Your task to perform on an android device: Show the shopping cart on bestbuy. Add bose soundlink to the cart on bestbuy Image 0: 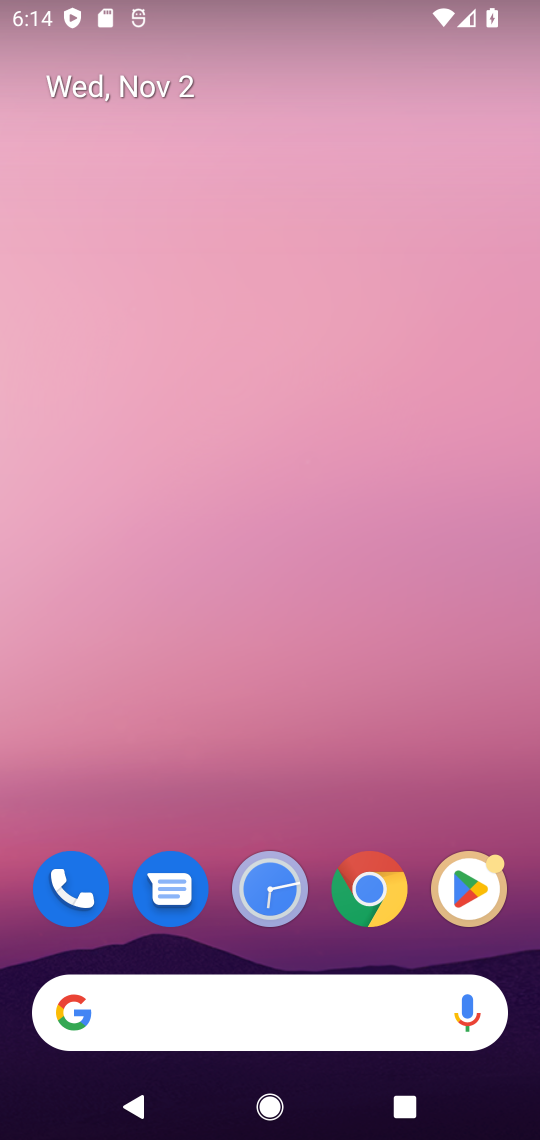
Step 0: click (373, 889)
Your task to perform on an android device: Show the shopping cart on bestbuy. Add bose soundlink to the cart on bestbuy Image 1: 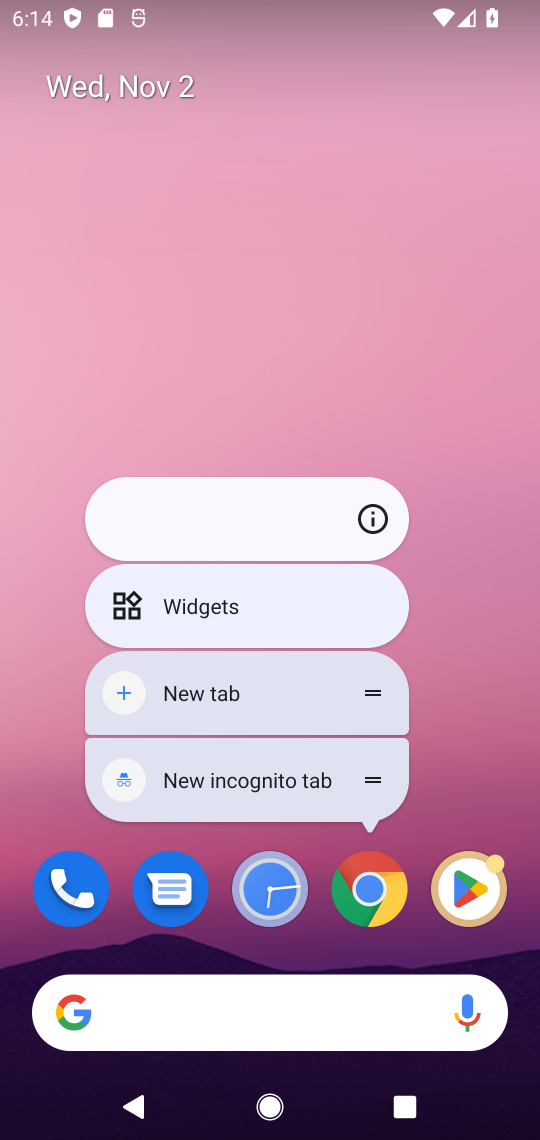
Step 1: click (373, 889)
Your task to perform on an android device: Show the shopping cart on bestbuy. Add bose soundlink to the cart on bestbuy Image 2: 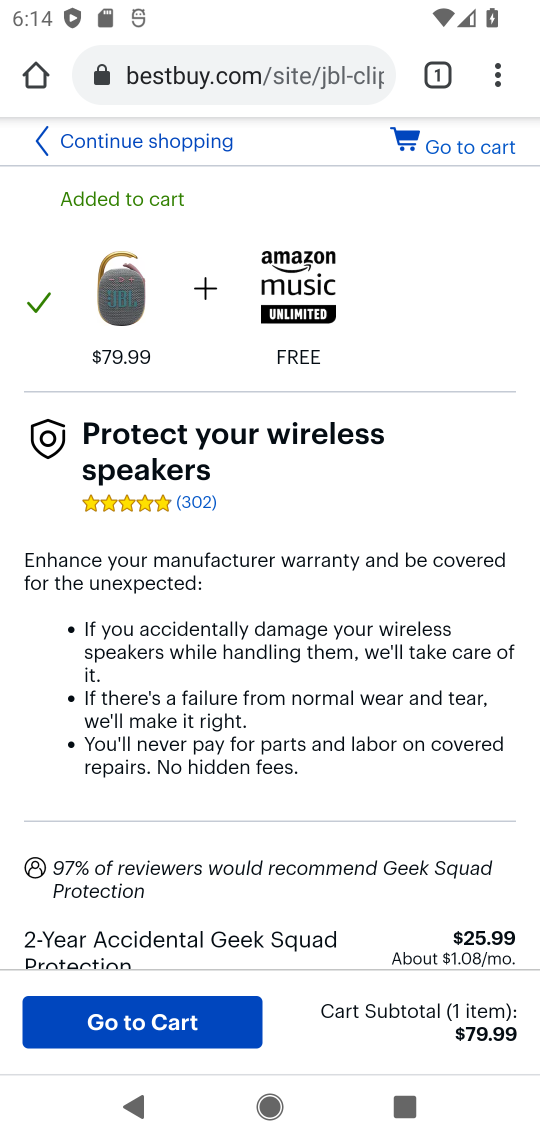
Step 2: drag from (378, 228) to (449, 793)
Your task to perform on an android device: Show the shopping cart on bestbuy. Add bose soundlink to the cart on bestbuy Image 3: 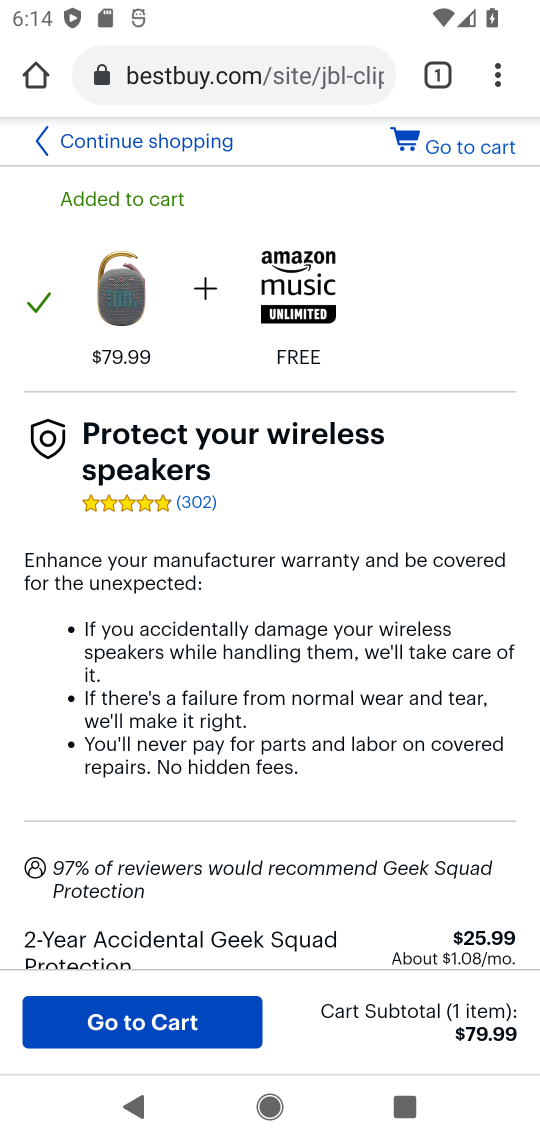
Step 3: drag from (364, 215) to (529, 803)
Your task to perform on an android device: Show the shopping cart on bestbuy. Add bose soundlink to the cart on bestbuy Image 4: 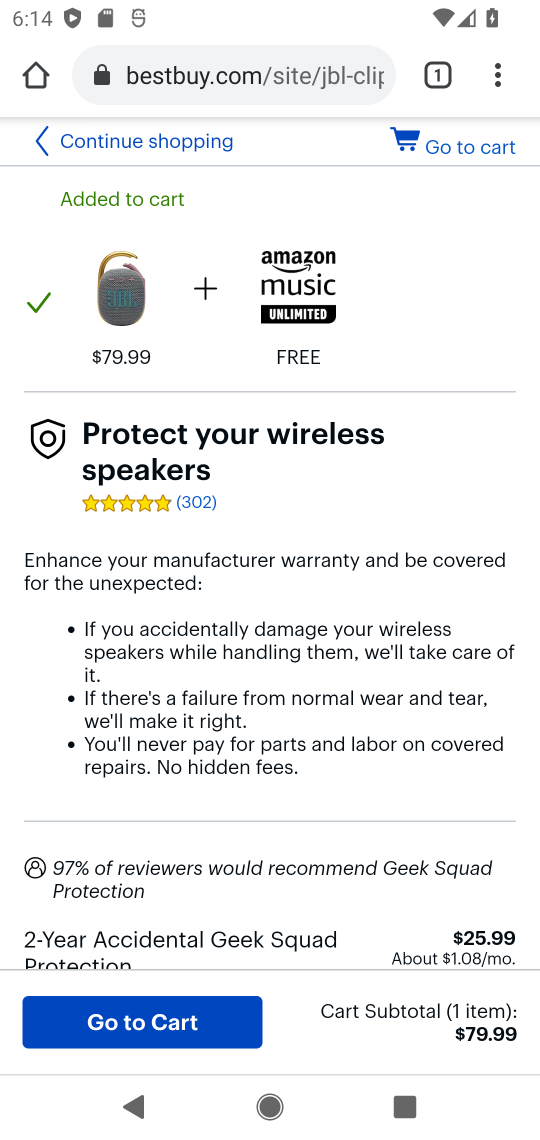
Step 4: click (226, 72)
Your task to perform on an android device: Show the shopping cart on bestbuy. Add bose soundlink to the cart on bestbuy Image 5: 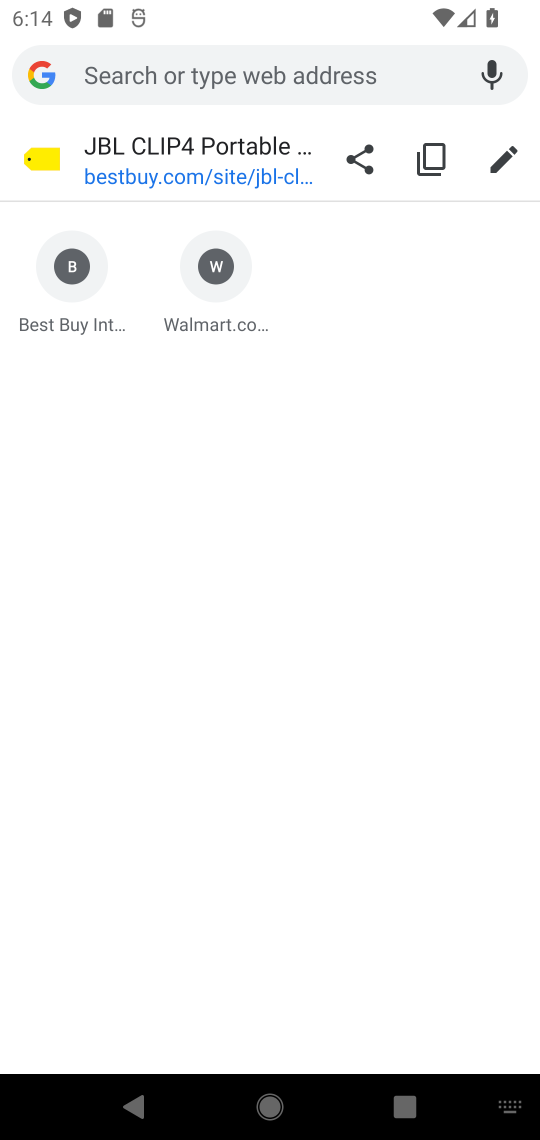
Step 5: click (65, 281)
Your task to perform on an android device: Show the shopping cart on bestbuy. Add bose soundlink to the cart on bestbuy Image 6: 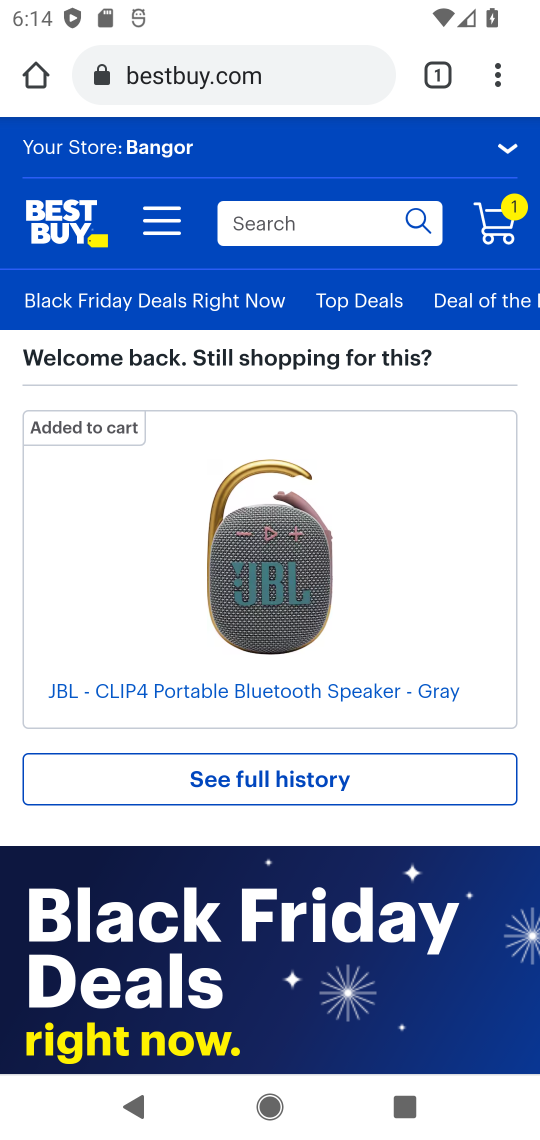
Step 6: click (496, 230)
Your task to perform on an android device: Show the shopping cart on bestbuy. Add bose soundlink to the cart on bestbuy Image 7: 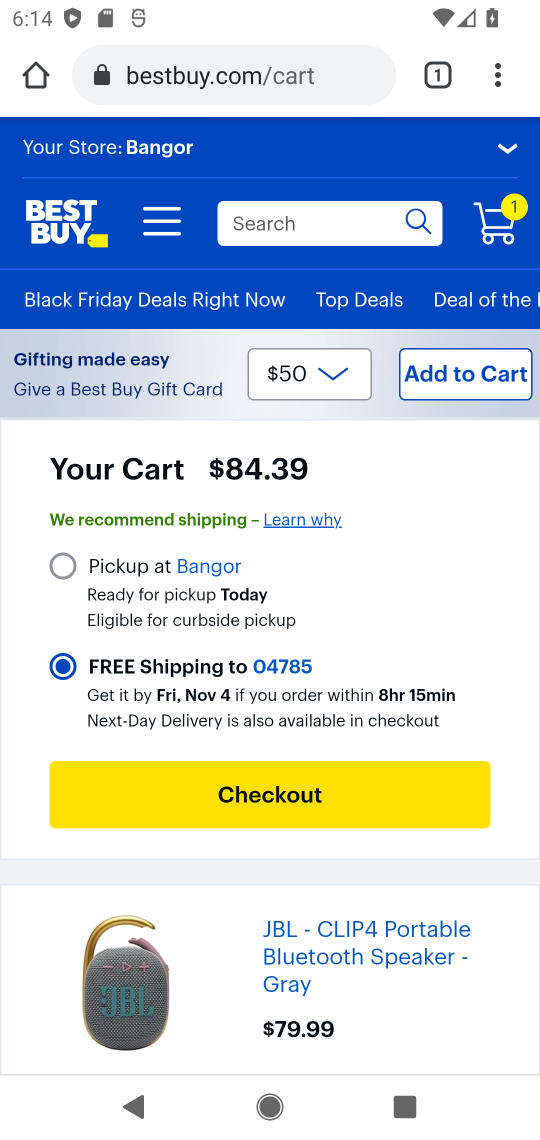
Step 7: click (366, 215)
Your task to perform on an android device: Show the shopping cart on bestbuy. Add bose soundlink to the cart on bestbuy Image 8: 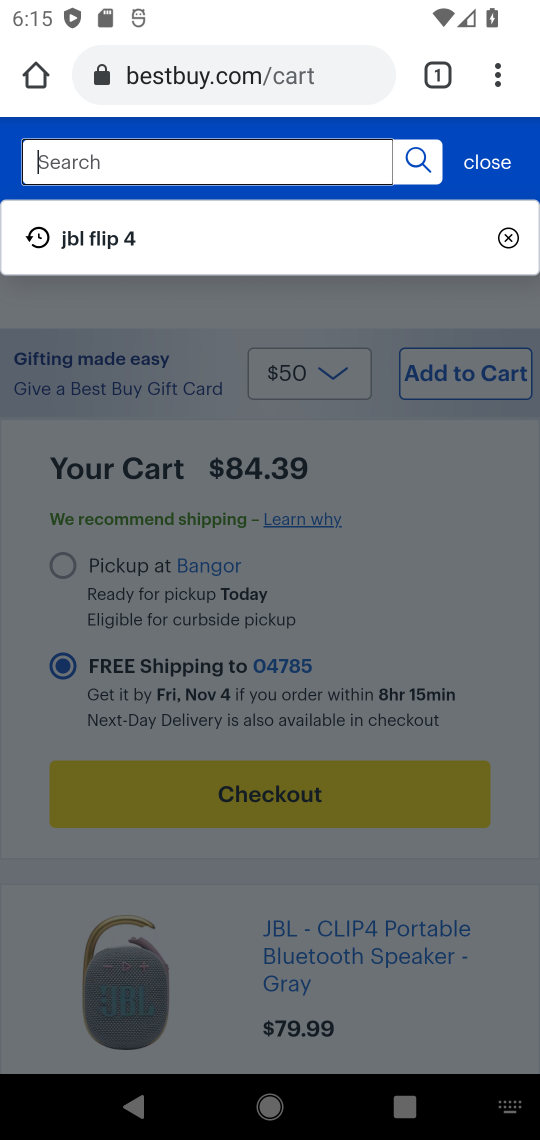
Step 8: type "bose soundlink"
Your task to perform on an android device: Show the shopping cart on bestbuy. Add bose soundlink to the cart on bestbuy Image 9: 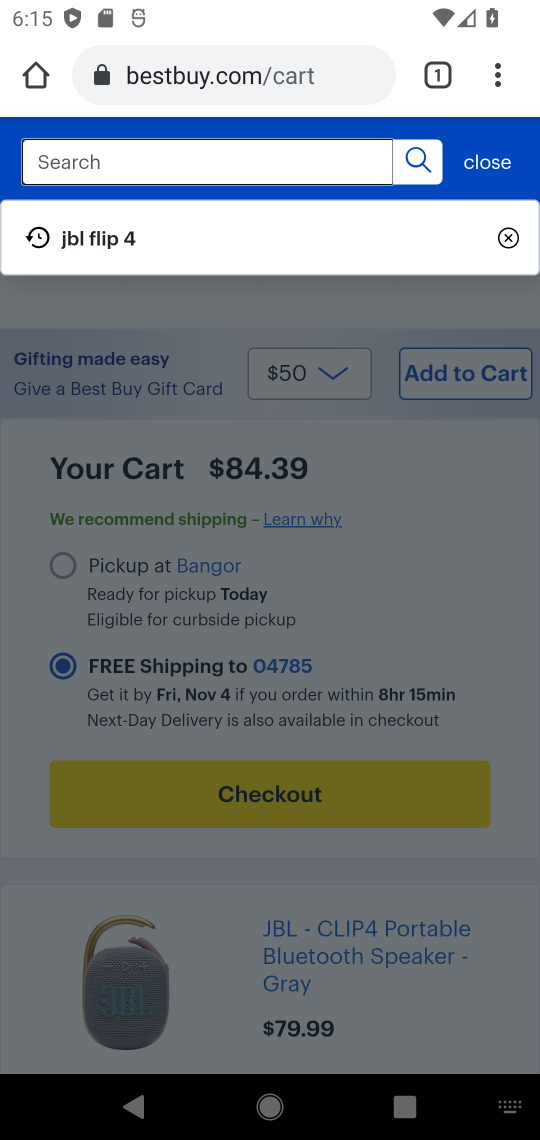
Step 9: press enter
Your task to perform on an android device: Show the shopping cart on bestbuy. Add bose soundlink to the cart on bestbuy Image 10: 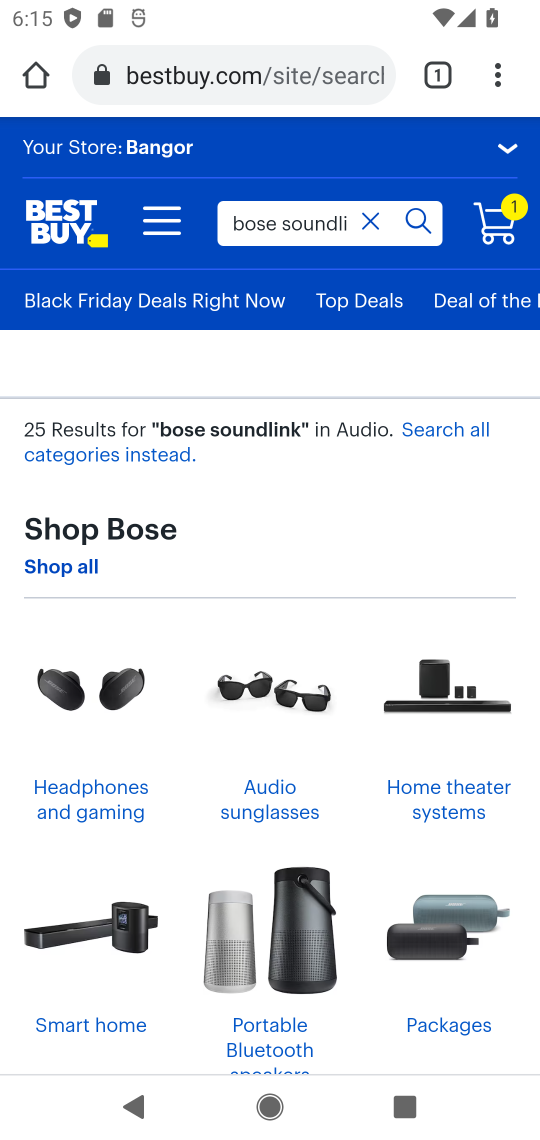
Step 10: drag from (231, 885) to (218, 355)
Your task to perform on an android device: Show the shopping cart on bestbuy. Add bose soundlink to the cart on bestbuy Image 11: 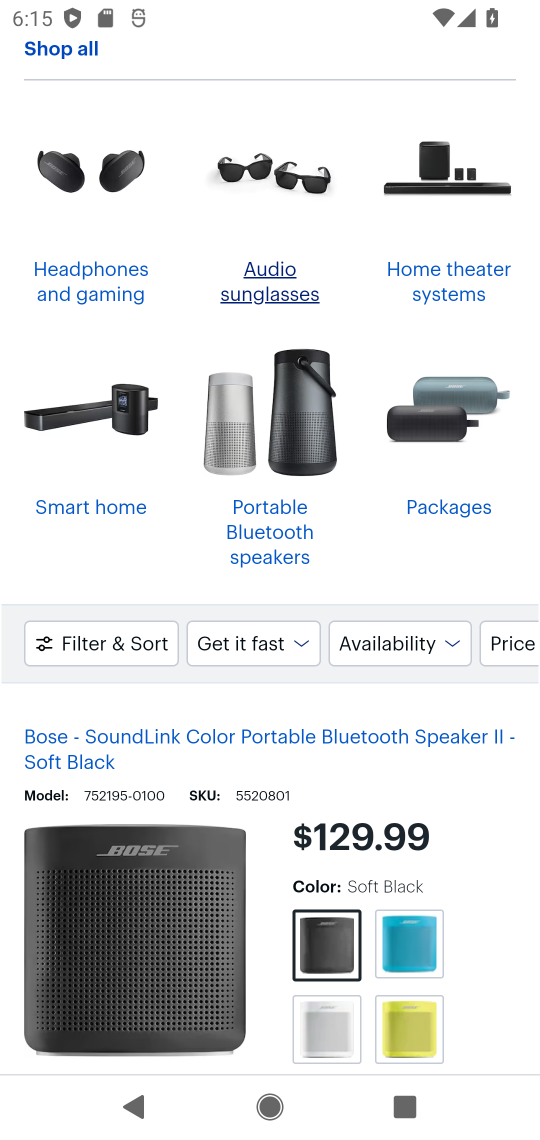
Step 11: click (182, 969)
Your task to perform on an android device: Show the shopping cart on bestbuy. Add bose soundlink to the cart on bestbuy Image 12: 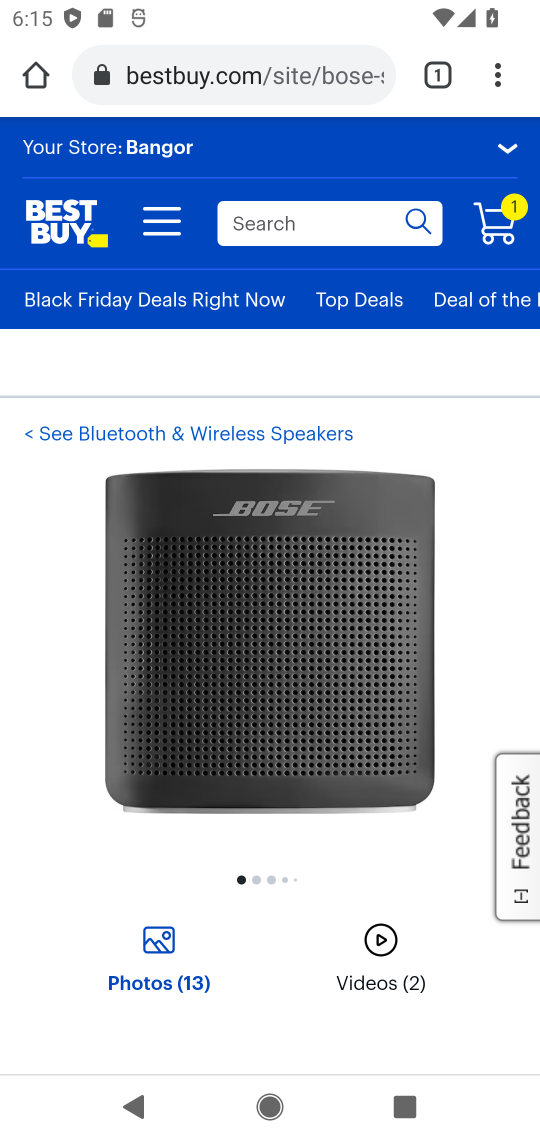
Step 12: drag from (347, 794) to (386, 196)
Your task to perform on an android device: Show the shopping cart on bestbuy. Add bose soundlink to the cart on bestbuy Image 13: 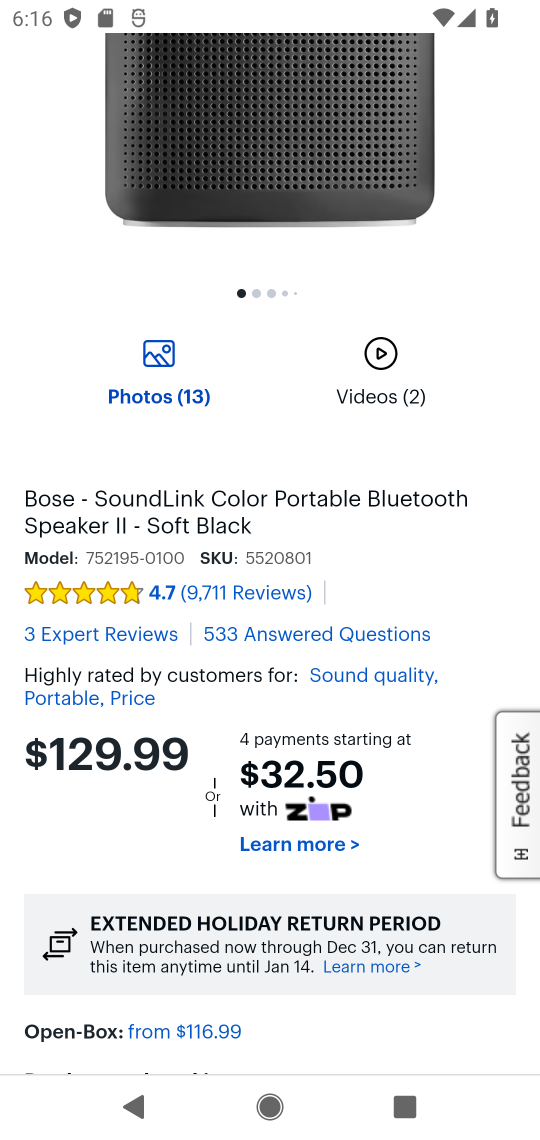
Step 13: drag from (402, 795) to (402, 532)
Your task to perform on an android device: Show the shopping cart on bestbuy. Add bose soundlink to the cart on bestbuy Image 14: 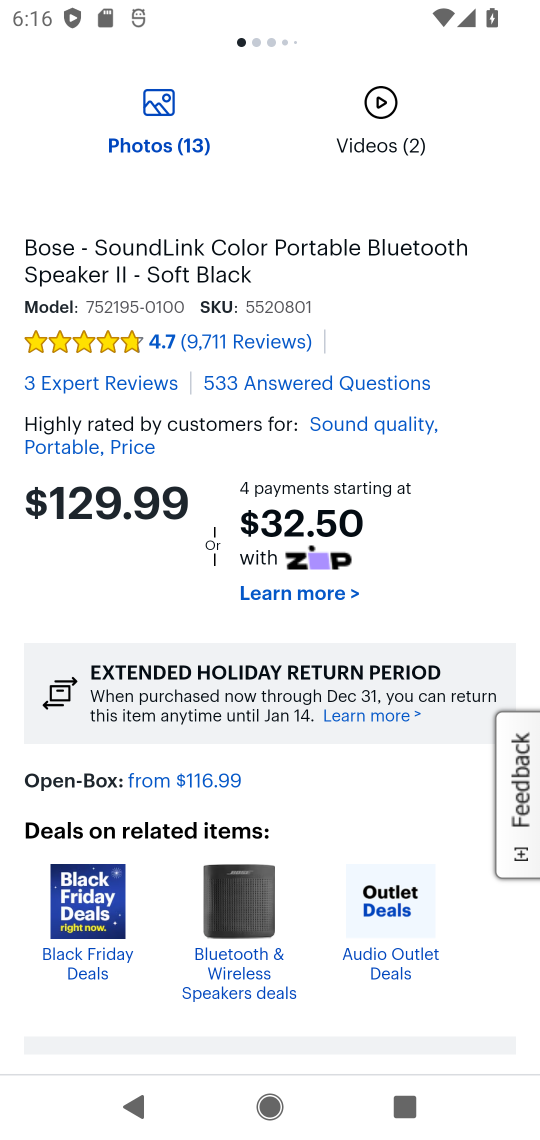
Step 14: drag from (376, 868) to (300, 473)
Your task to perform on an android device: Show the shopping cart on bestbuy. Add bose soundlink to the cart on bestbuy Image 15: 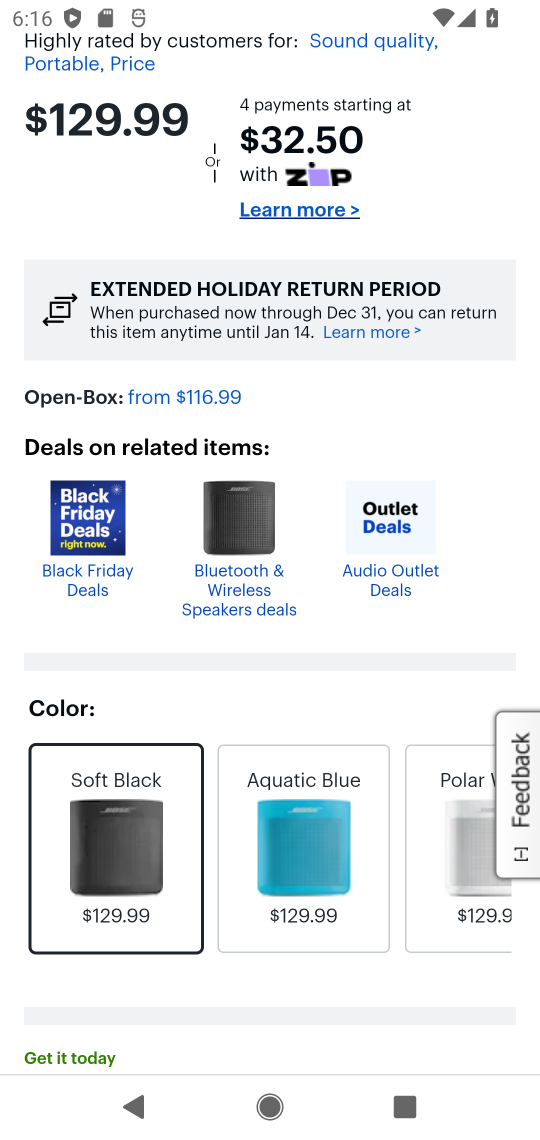
Step 15: drag from (429, 996) to (298, 517)
Your task to perform on an android device: Show the shopping cart on bestbuy. Add bose soundlink to the cart on bestbuy Image 16: 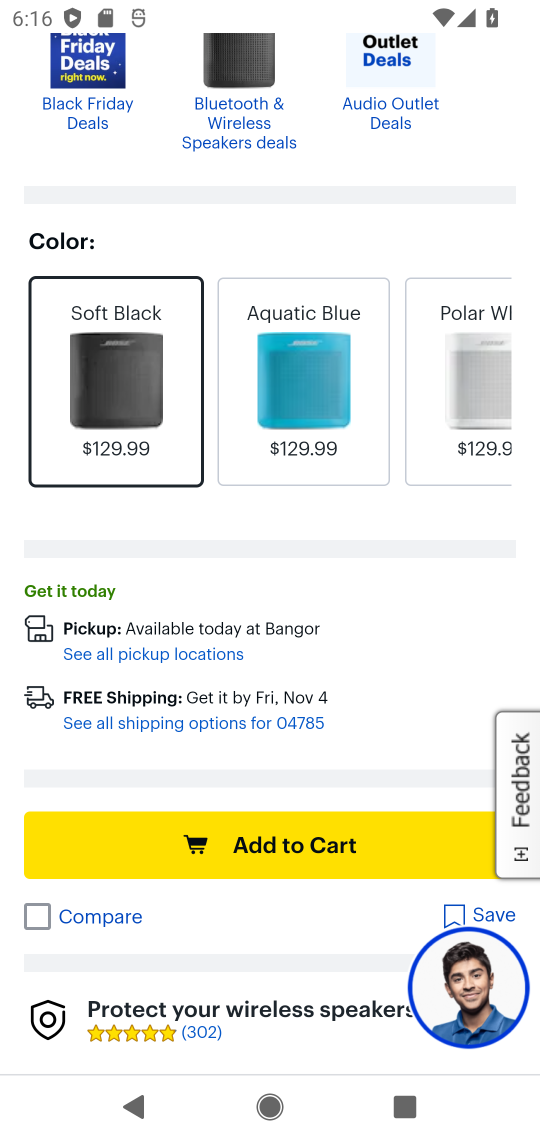
Step 16: click (320, 844)
Your task to perform on an android device: Show the shopping cart on bestbuy. Add bose soundlink to the cart on bestbuy Image 17: 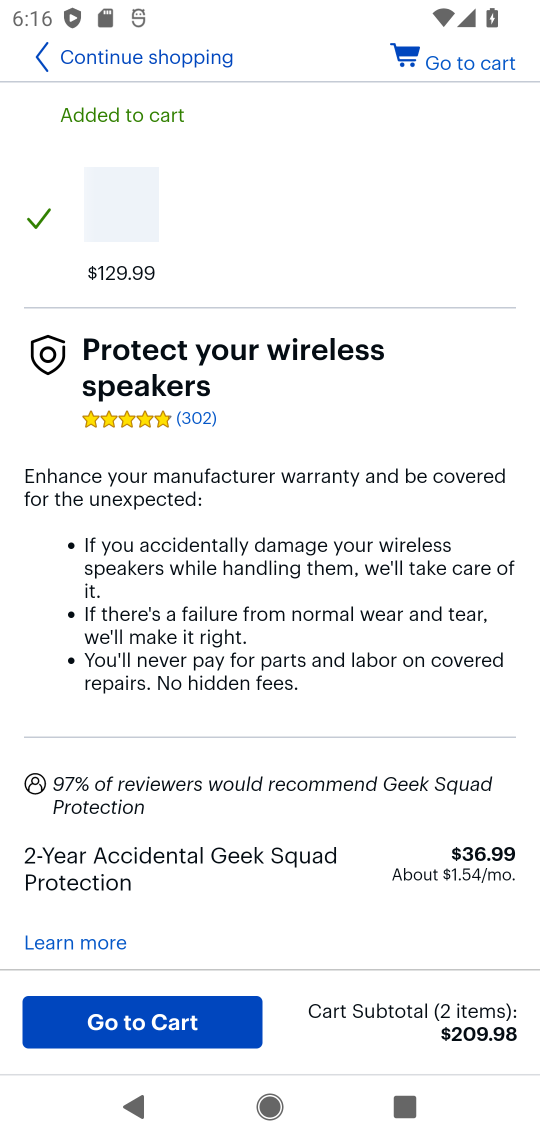
Step 17: task complete